Your task to perform on an android device: Open the Play Movies app and select the watchlist tab. Image 0: 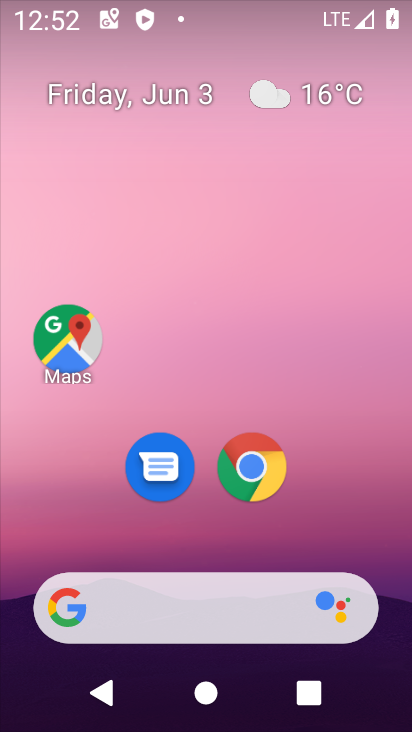
Step 0: drag from (157, 548) to (250, 99)
Your task to perform on an android device: Open the Play Movies app and select the watchlist tab. Image 1: 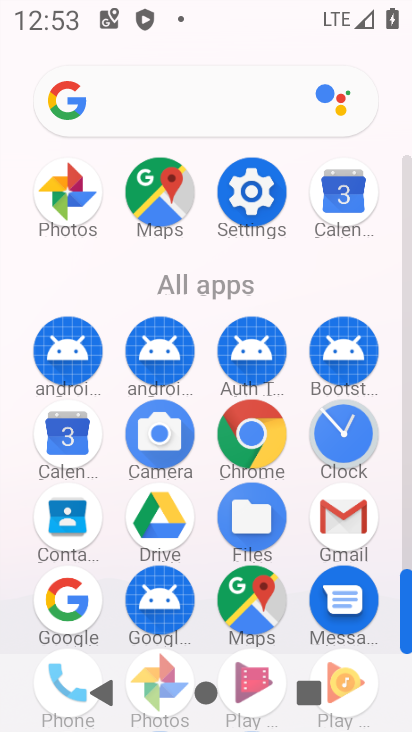
Step 1: click (250, 658)
Your task to perform on an android device: Open the Play Movies app and select the watchlist tab. Image 2: 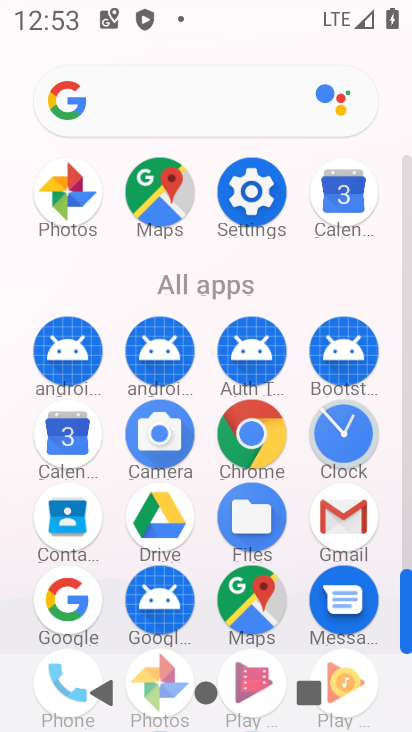
Step 2: drag from (211, 647) to (251, 394)
Your task to perform on an android device: Open the Play Movies app and select the watchlist tab. Image 3: 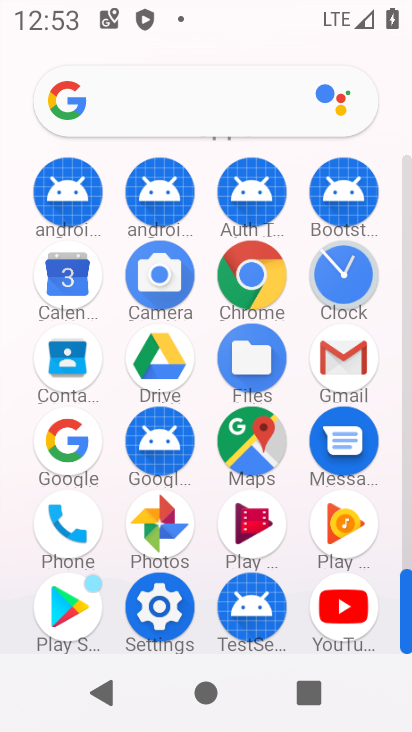
Step 3: click (237, 538)
Your task to perform on an android device: Open the Play Movies app and select the watchlist tab. Image 4: 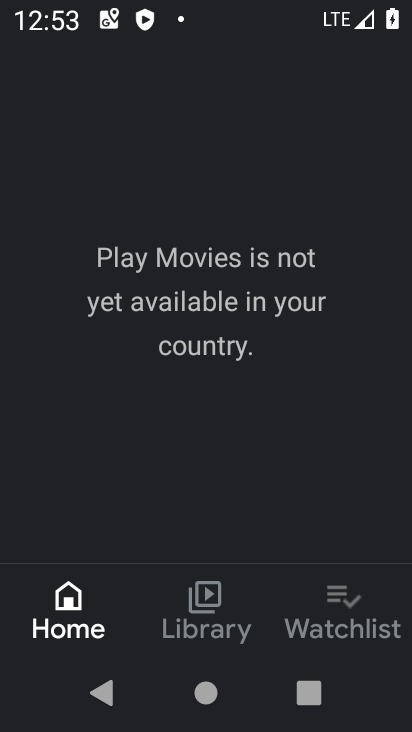
Step 4: click (350, 621)
Your task to perform on an android device: Open the Play Movies app and select the watchlist tab. Image 5: 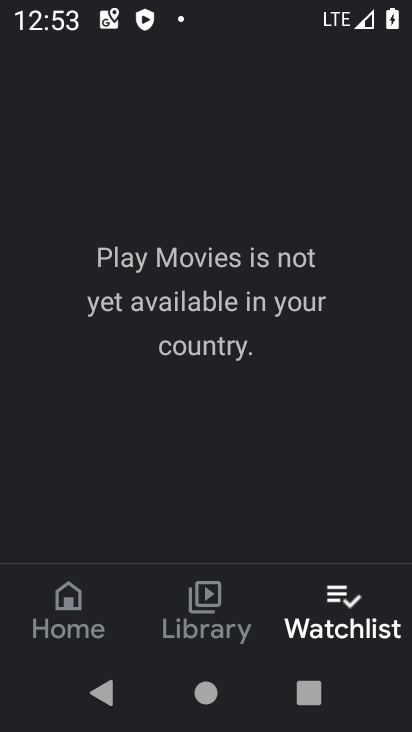
Step 5: task complete